Your task to perform on an android device: Open Wikipedia Image 0: 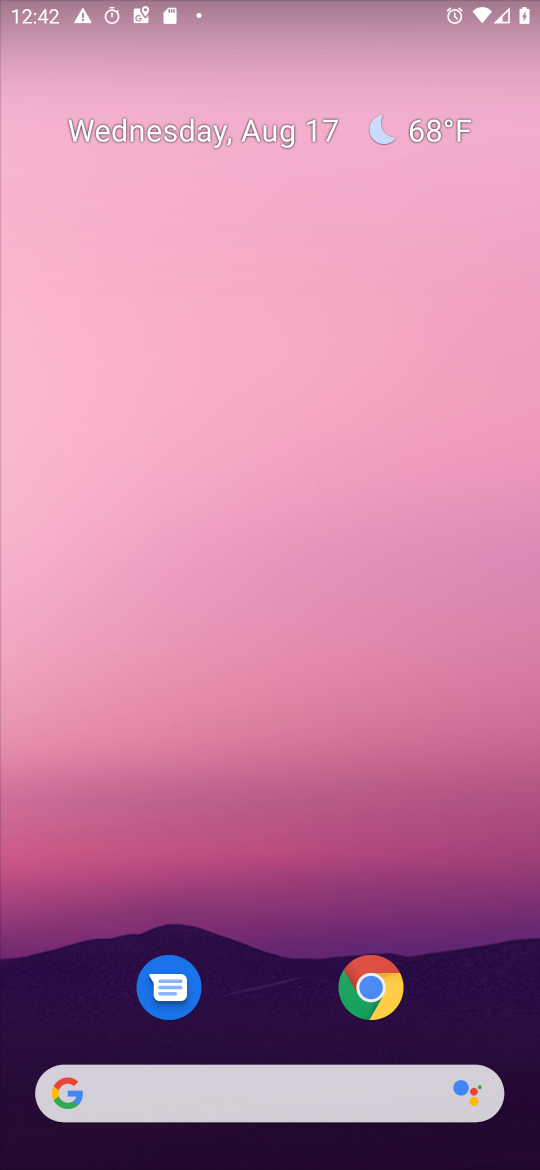
Step 0: click (133, 1085)
Your task to perform on an android device: Open Wikipedia Image 1: 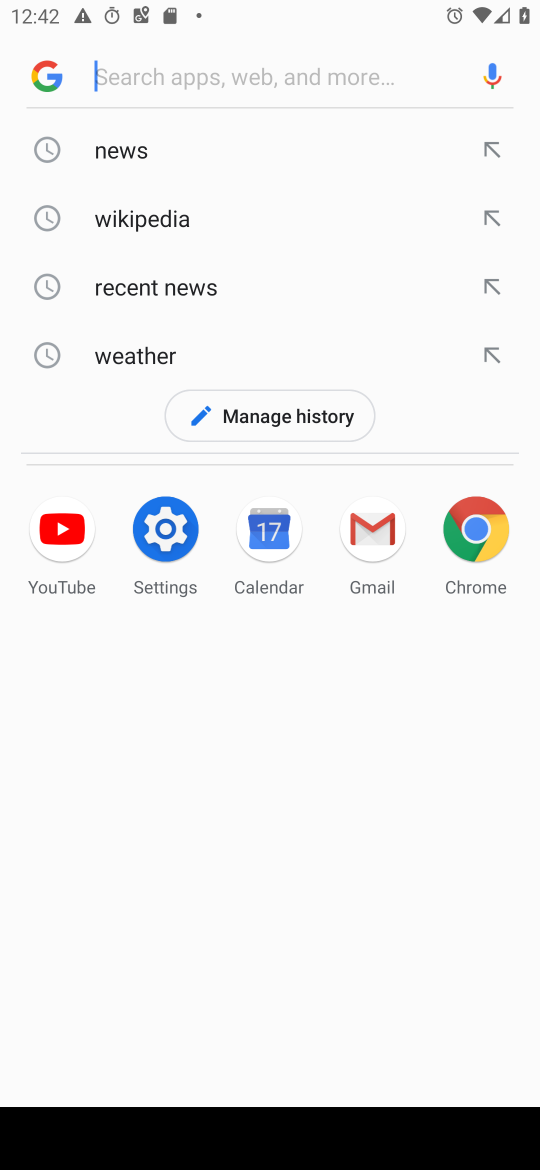
Step 1: type "Wikipedia"
Your task to perform on an android device: Open Wikipedia Image 2: 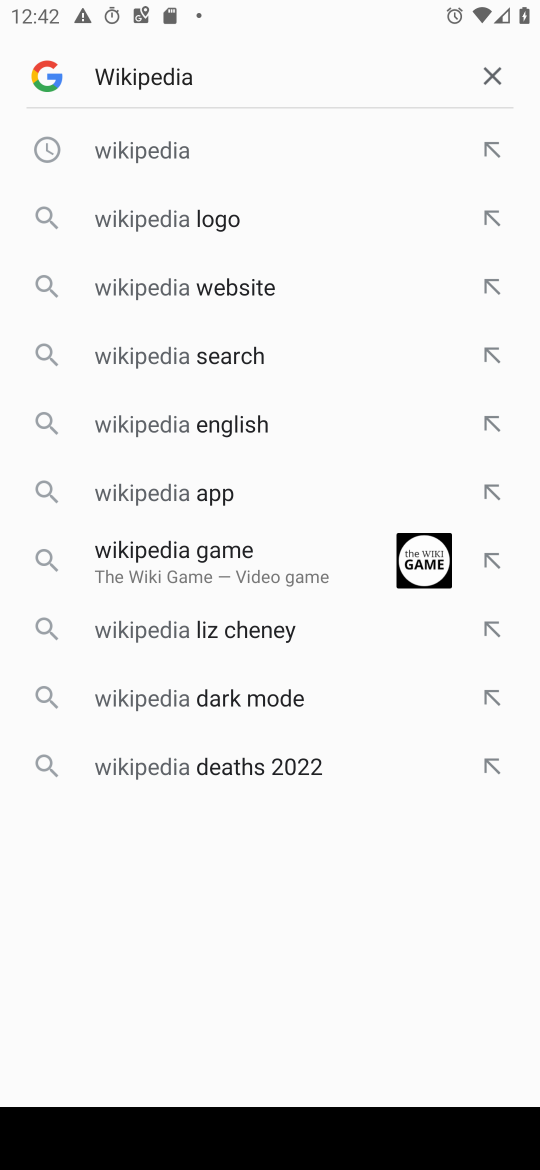
Step 2: click (170, 151)
Your task to perform on an android device: Open Wikipedia Image 3: 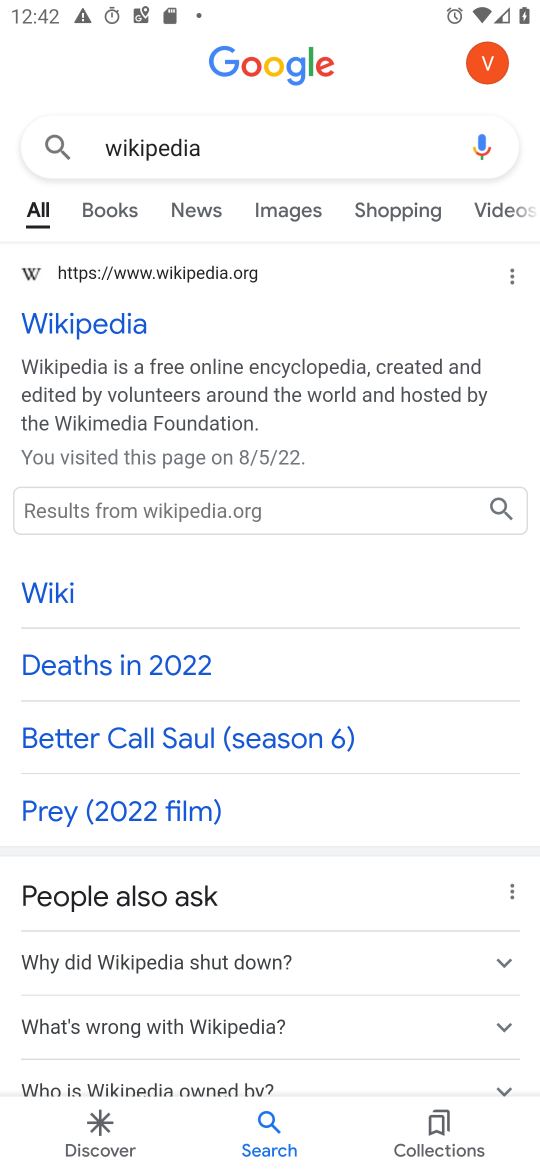
Step 3: task complete